Your task to perform on an android device: set the stopwatch Image 0: 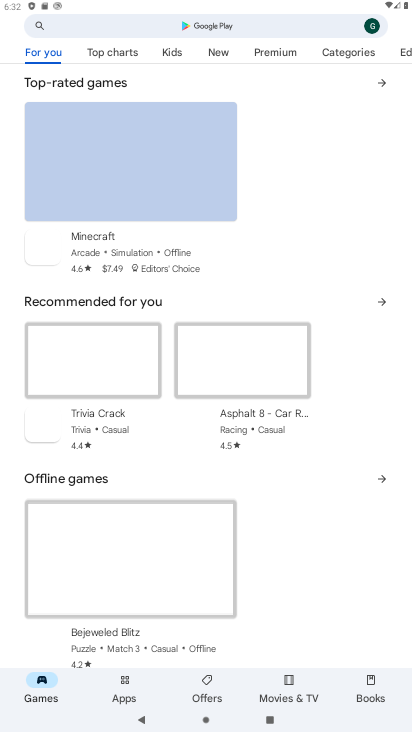
Step 0: press home button
Your task to perform on an android device: set the stopwatch Image 1: 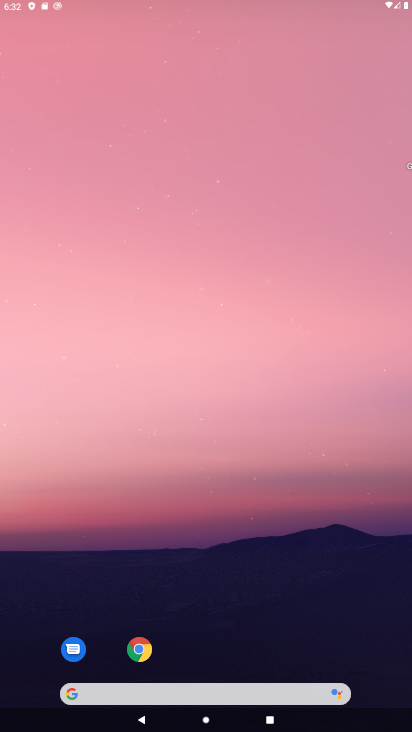
Step 1: drag from (403, 665) to (268, 1)
Your task to perform on an android device: set the stopwatch Image 2: 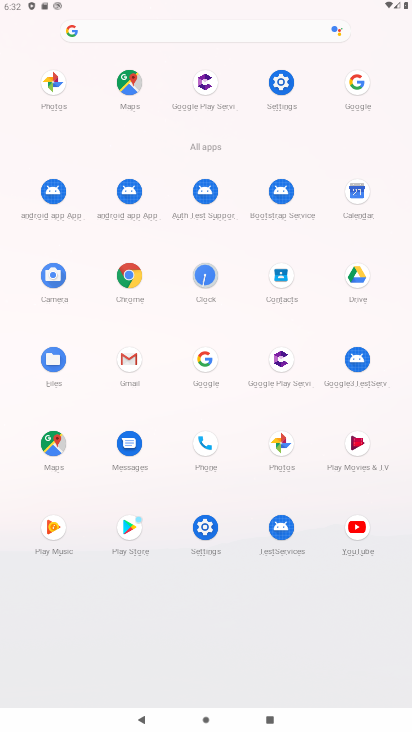
Step 2: click (197, 276)
Your task to perform on an android device: set the stopwatch Image 3: 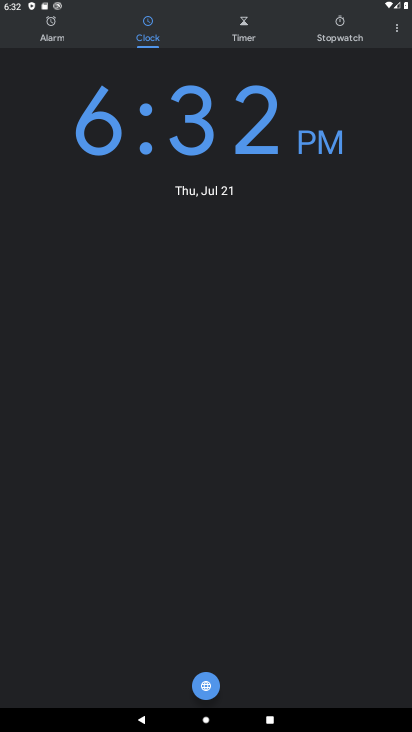
Step 3: click (338, 29)
Your task to perform on an android device: set the stopwatch Image 4: 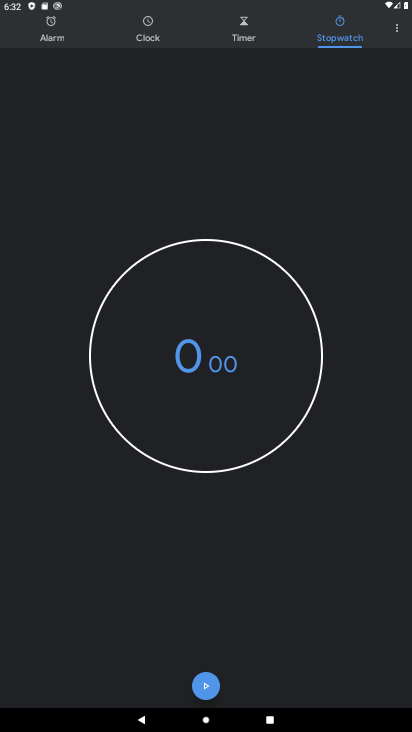
Step 4: click (203, 685)
Your task to perform on an android device: set the stopwatch Image 5: 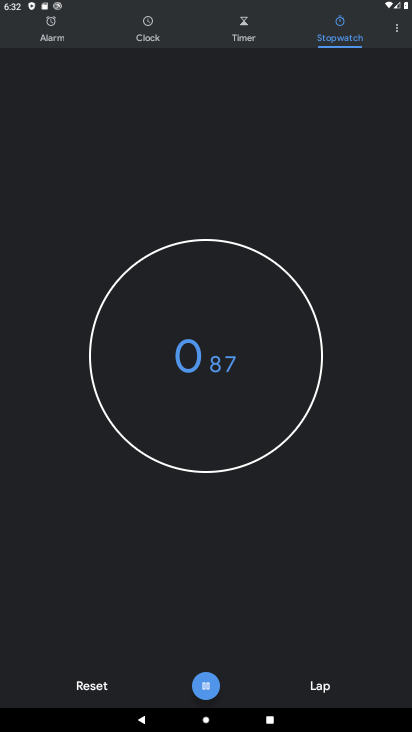
Step 5: click (203, 685)
Your task to perform on an android device: set the stopwatch Image 6: 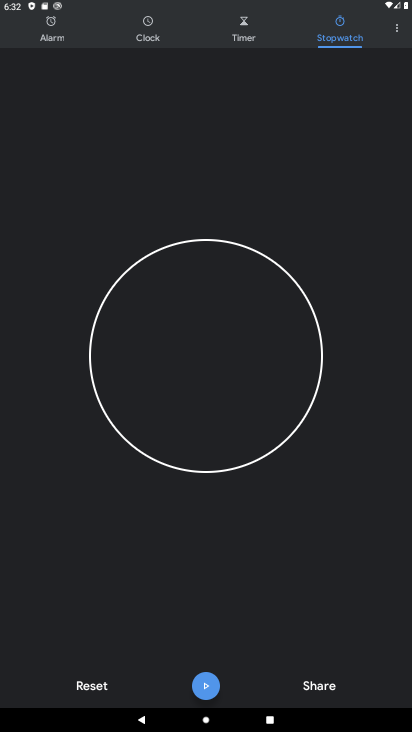
Step 6: task complete